Your task to perform on an android device: Open internet settings Image 0: 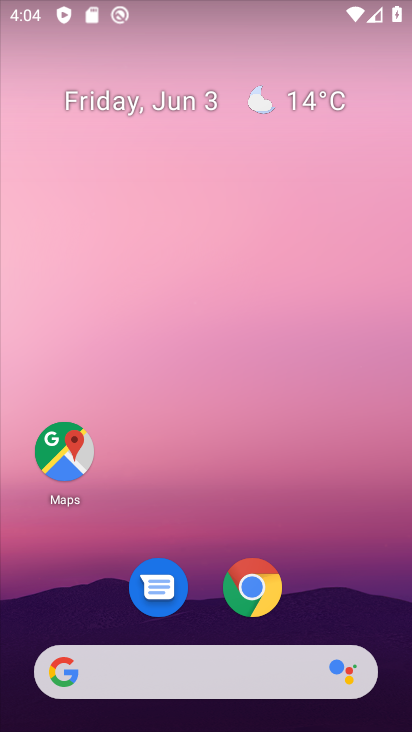
Step 0: drag from (208, 572) to (230, 258)
Your task to perform on an android device: Open internet settings Image 1: 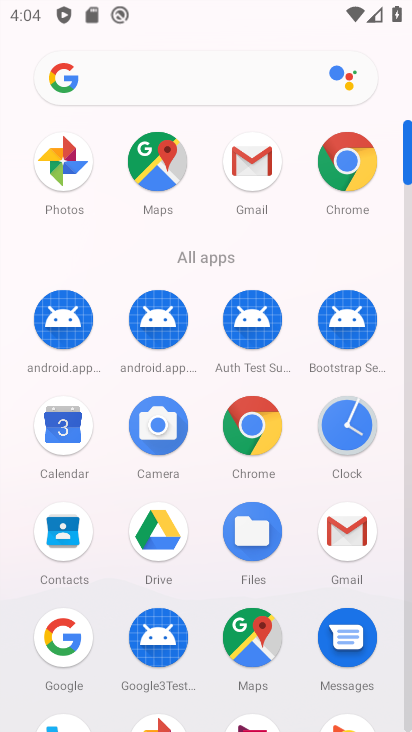
Step 1: drag from (196, 515) to (163, 112)
Your task to perform on an android device: Open internet settings Image 2: 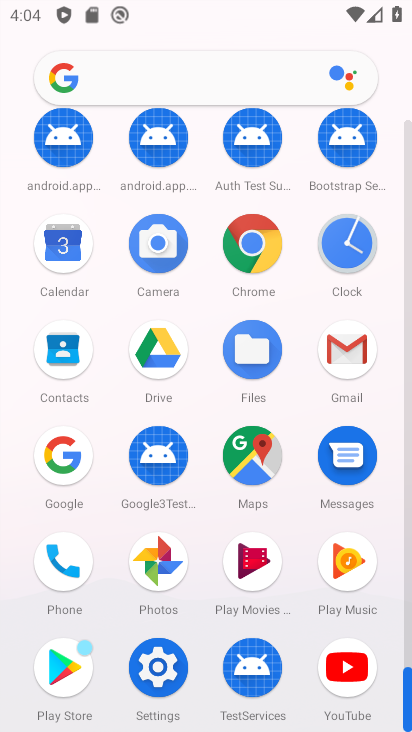
Step 2: click (149, 672)
Your task to perform on an android device: Open internet settings Image 3: 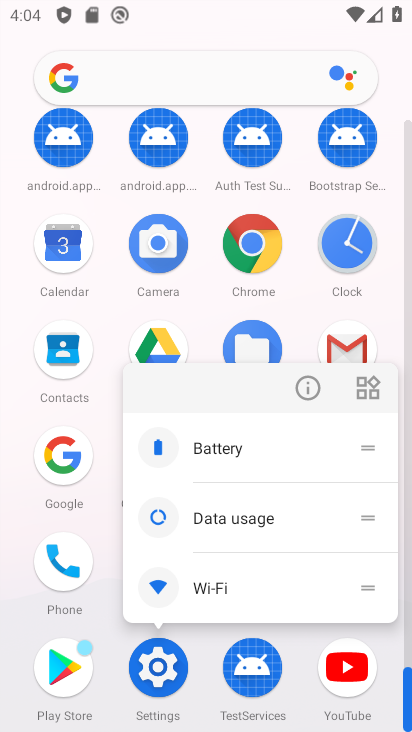
Step 3: click (168, 670)
Your task to perform on an android device: Open internet settings Image 4: 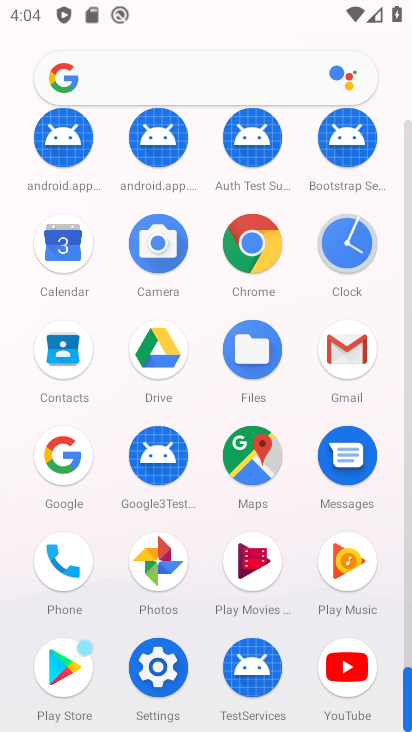
Step 4: click (148, 668)
Your task to perform on an android device: Open internet settings Image 5: 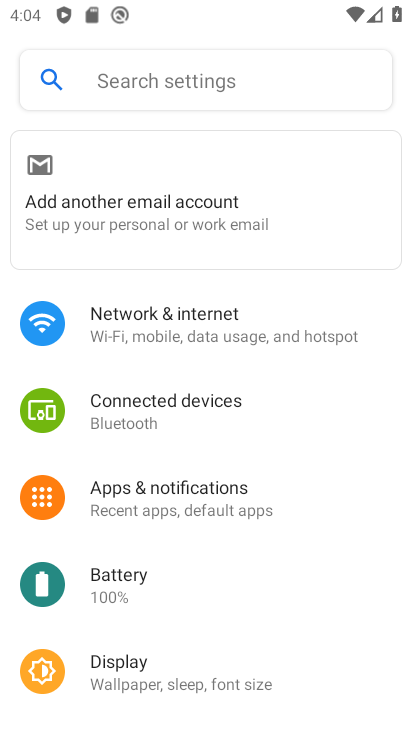
Step 5: click (170, 194)
Your task to perform on an android device: Open internet settings Image 6: 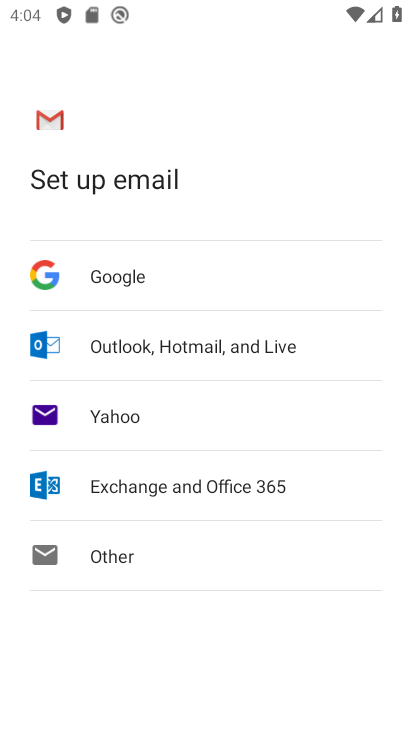
Step 6: press back button
Your task to perform on an android device: Open internet settings Image 7: 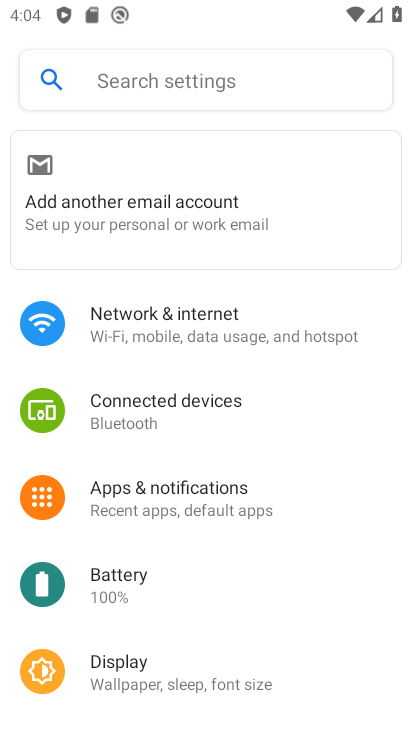
Step 7: click (164, 326)
Your task to perform on an android device: Open internet settings Image 8: 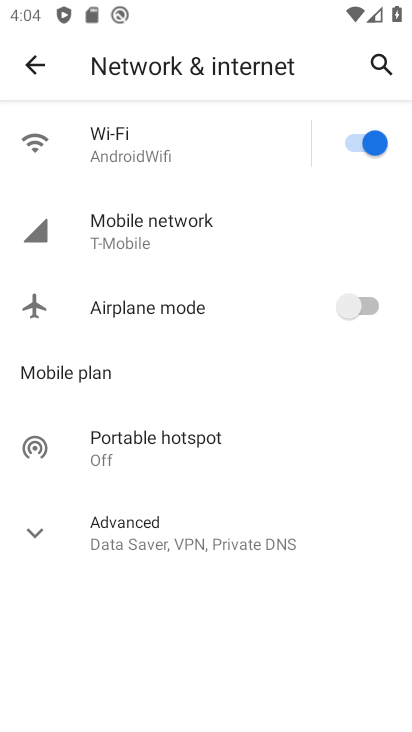
Step 8: click (133, 535)
Your task to perform on an android device: Open internet settings Image 9: 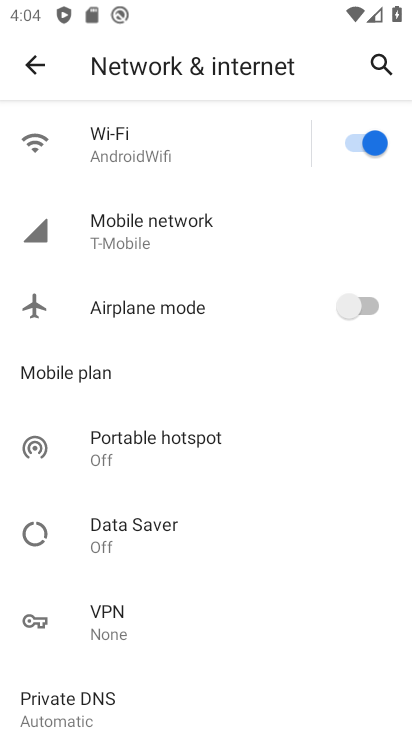
Step 9: task complete